Your task to perform on an android device: Show me productivity apps on the Play Store Image 0: 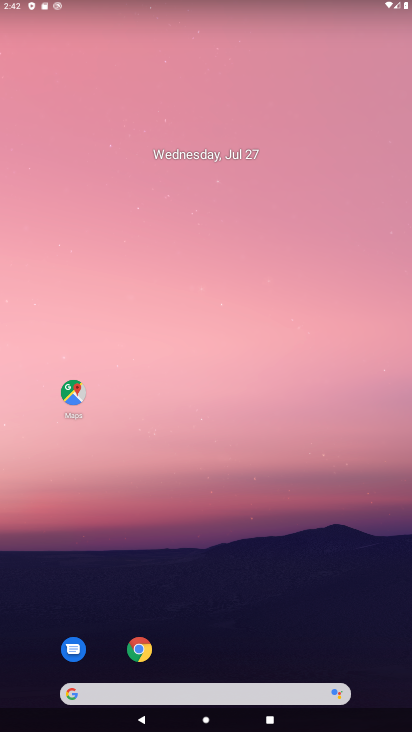
Step 0: drag from (283, 627) to (306, 93)
Your task to perform on an android device: Show me productivity apps on the Play Store Image 1: 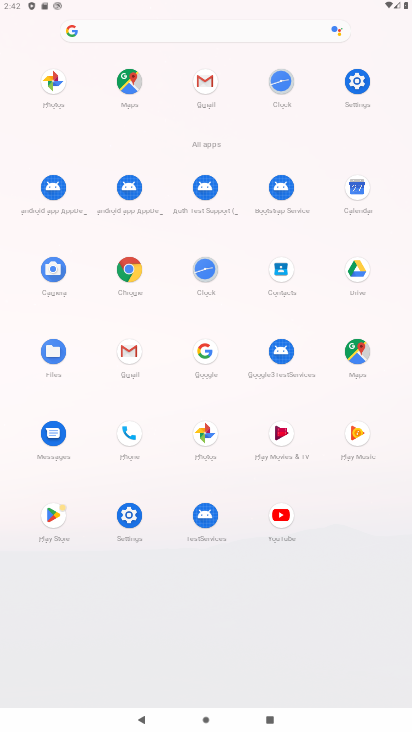
Step 1: click (60, 514)
Your task to perform on an android device: Show me productivity apps on the Play Store Image 2: 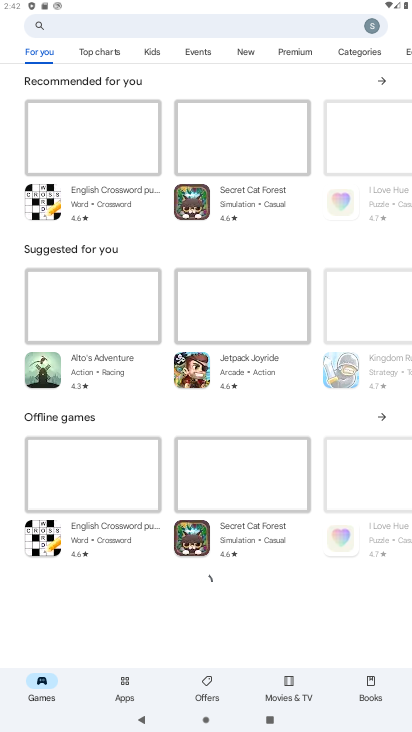
Step 2: click (156, 22)
Your task to perform on an android device: Show me productivity apps on the Play Store Image 3: 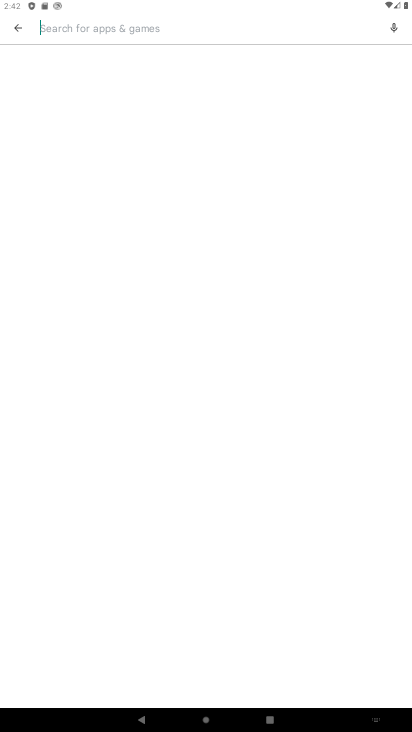
Step 3: type "productivity apps"
Your task to perform on an android device: Show me productivity apps on the Play Store Image 4: 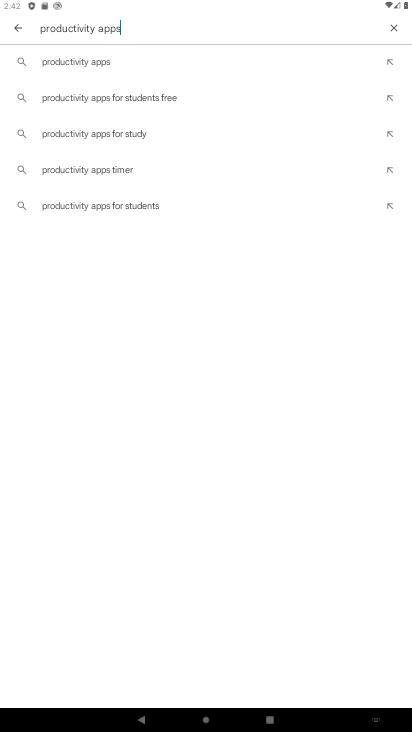
Step 4: click (108, 59)
Your task to perform on an android device: Show me productivity apps on the Play Store Image 5: 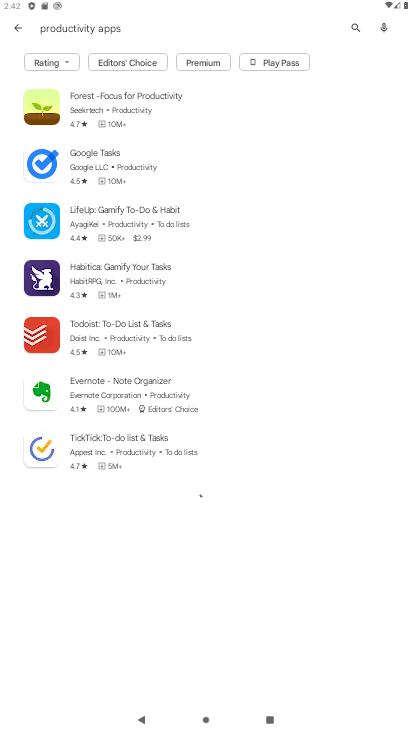
Step 5: task complete